Your task to perform on an android device: Turn off the flashlight Image 0: 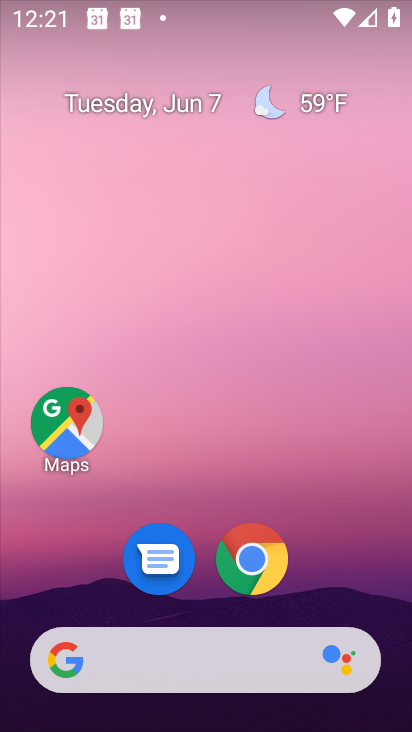
Step 0: drag from (341, 571) to (363, 232)
Your task to perform on an android device: Turn off the flashlight Image 1: 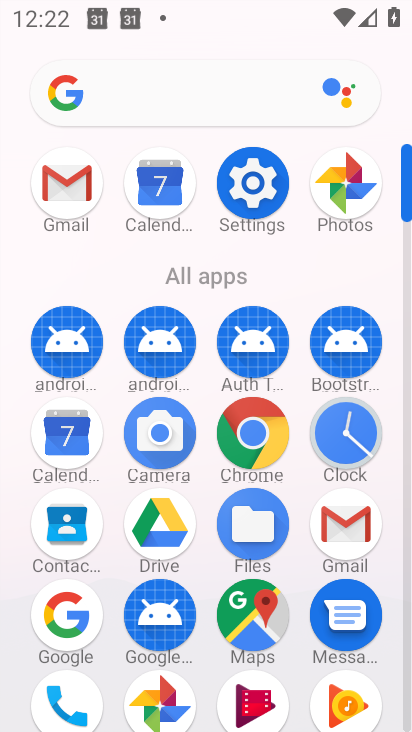
Step 1: click (256, 176)
Your task to perform on an android device: Turn off the flashlight Image 2: 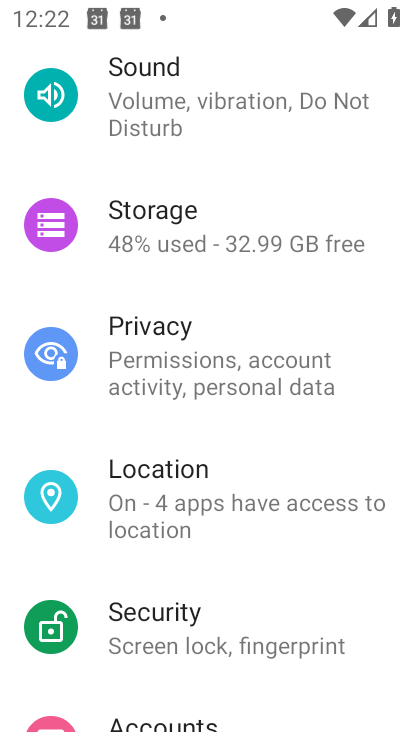
Step 2: task complete